Your task to perform on an android device: When is my next meeting? Image 0: 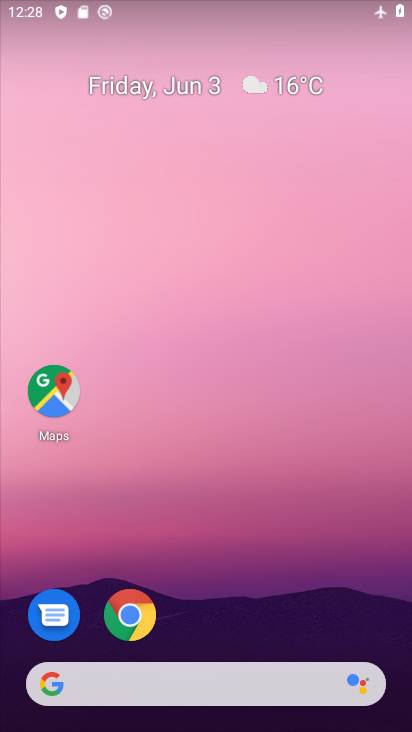
Step 0: drag from (222, 658) to (225, 266)
Your task to perform on an android device: When is my next meeting? Image 1: 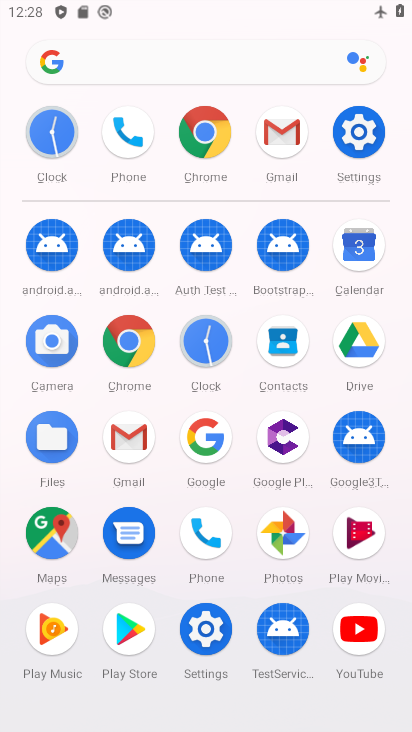
Step 1: click (367, 250)
Your task to perform on an android device: When is my next meeting? Image 2: 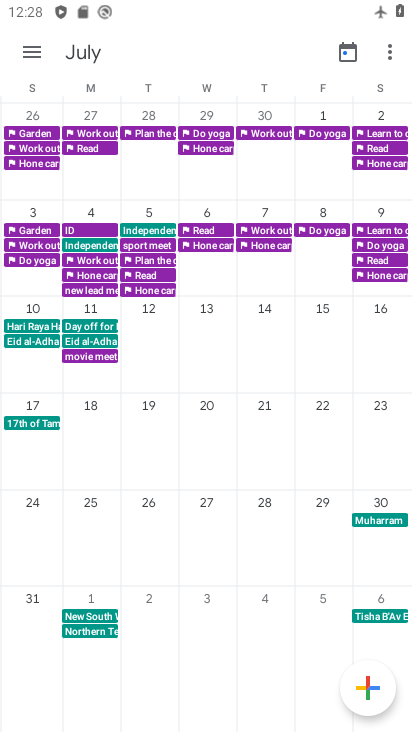
Step 2: drag from (47, 216) to (367, 216)
Your task to perform on an android device: When is my next meeting? Image 3: 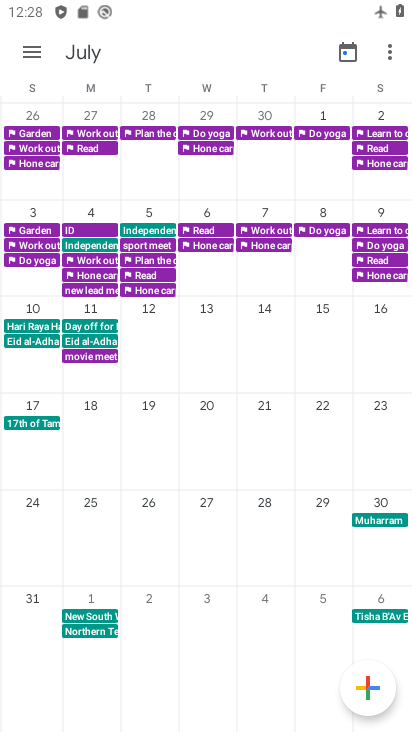
Step 3: drag from (82, 171) to (316, 199)
Your task to perform on an android device: When is my next meeting? Image 4: 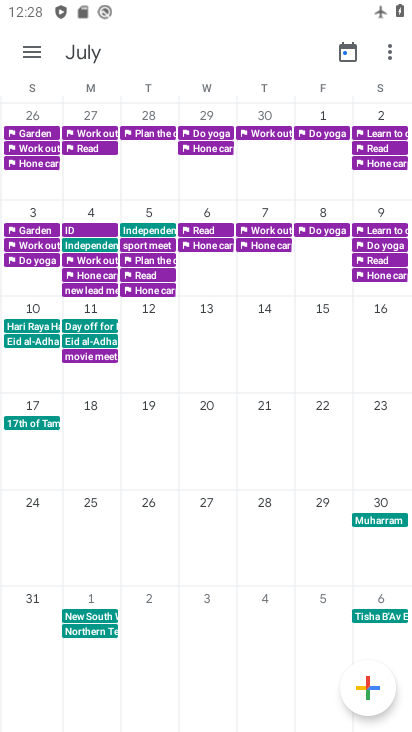
Step 4: drag from (37, 191) to (371, 212)
Your task to perform on an android device: When is my next meeting? Image 5: 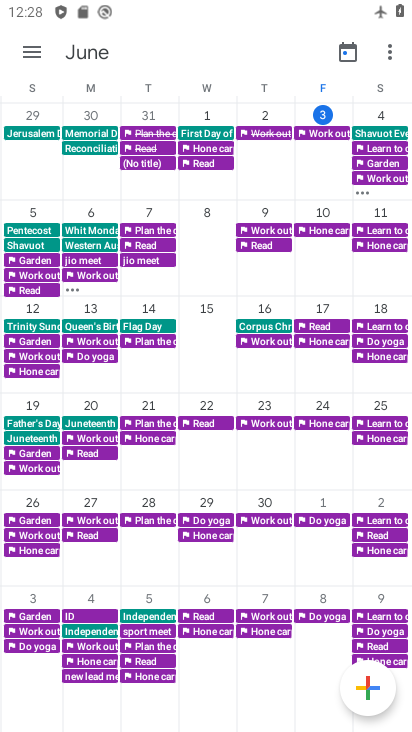
Step 5: click (36, 230)
Your task to perform on an android device: When is my next meeting? Image 6: 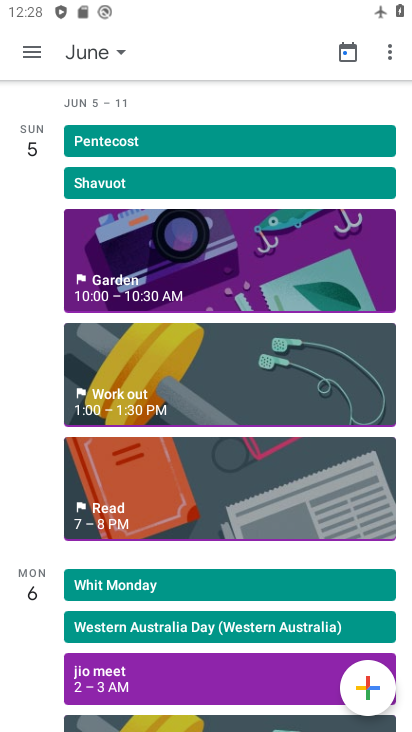
Step 6: task complete